Your task to perform on an android device: turn on improve location accuracy Image 0: 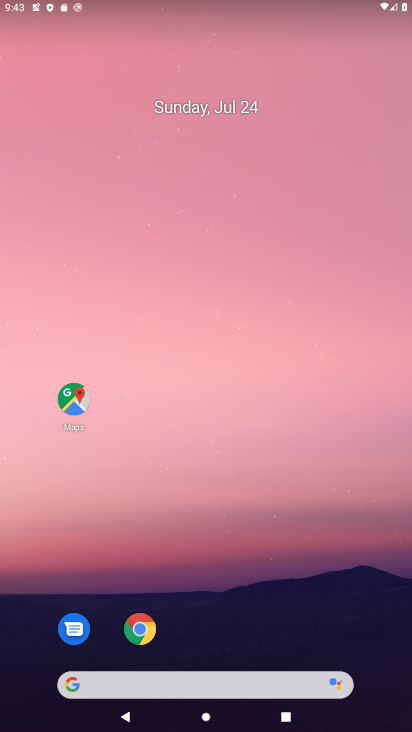
Step 0: drag from (254, 288) to (260, 3)
Your task to perform on an android device: turn on improve location accuracy Image 1: 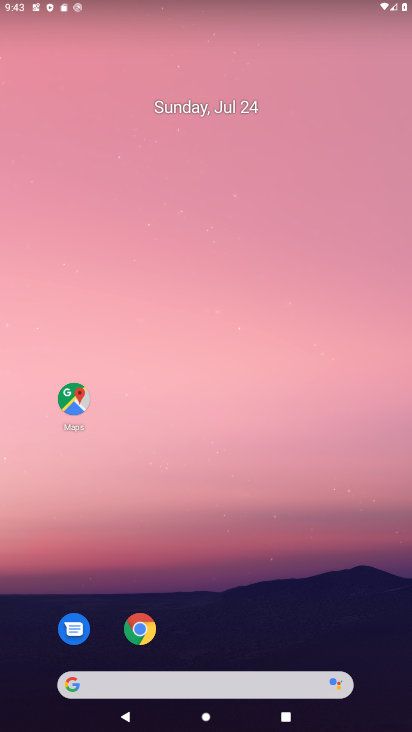
Step 1: drag from (295, 654) to (268, 94)
Your task to perform on an android device: turn on improve location accuracy Image 2: 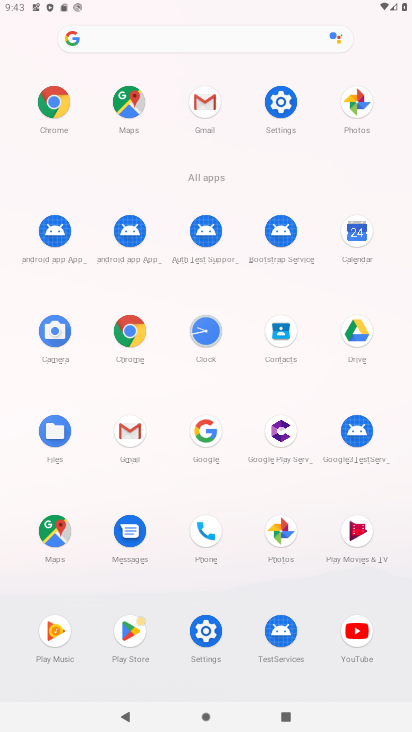
Step 2: click (276, 95)
Your task to perform on an android device: turn on improve location accuracy Image 3: 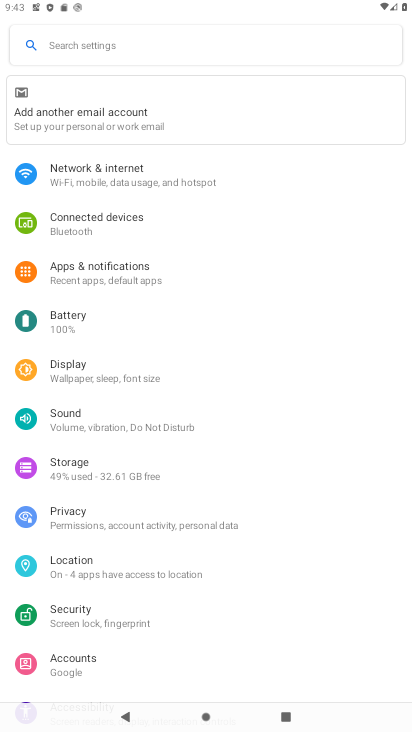
Step 3: task complete